Your task to perform on an android device: Go to notification settings Image 0: 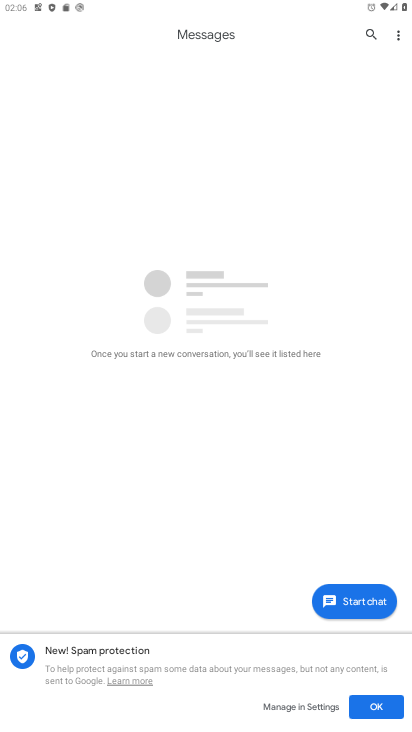
Step 0: press home button
Your task to perform on an android device: Go to notification settings Image 1: 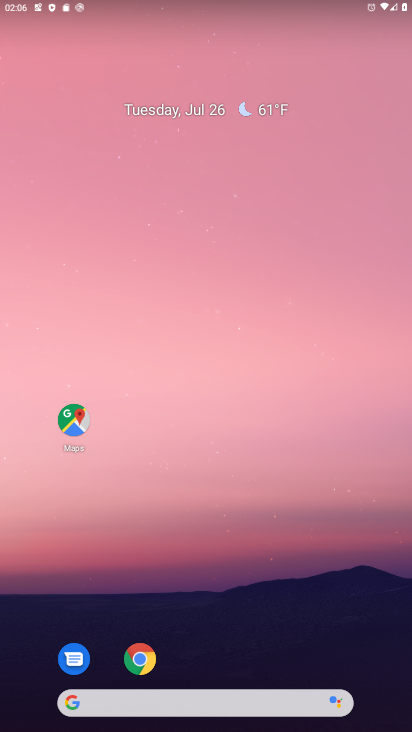
Step 1: drag from (260, 626) to (258, 127)
Your task to perform on an android device: Go to notification settings Image 2: 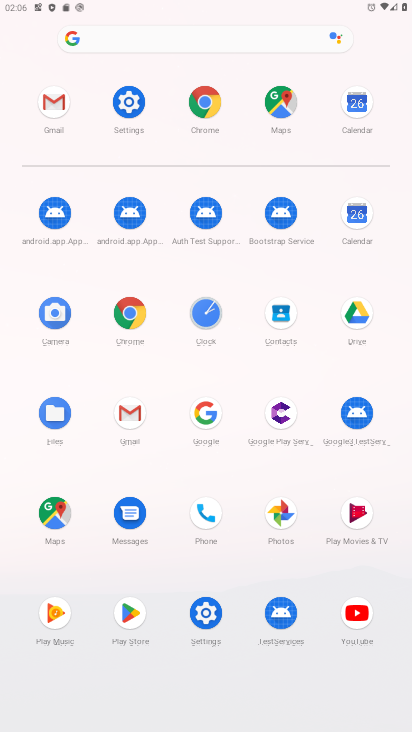
Step 2: click (132, 104)
Your task to perform on an android device: Go to notification settings Image 3: 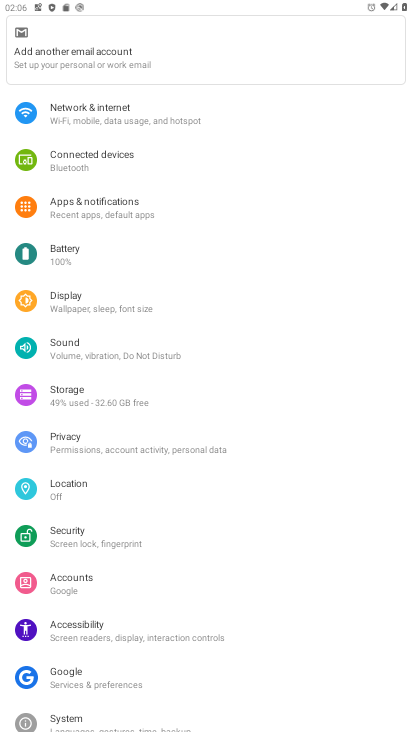
Step 3: click (108, 201)
Your task to perform on an android device: Go to notification settings Image 4: 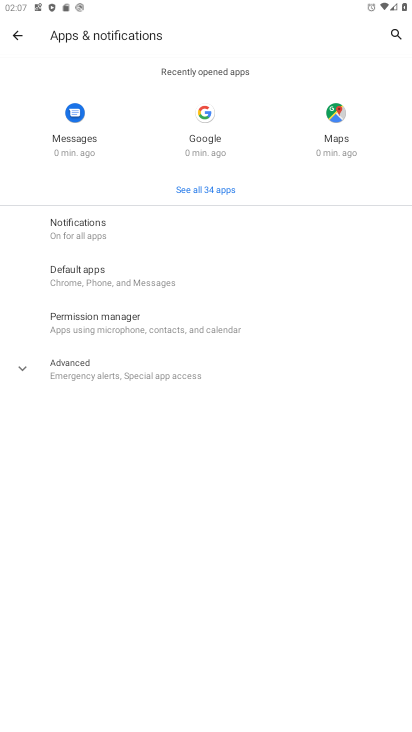
Step 4: click (58, 223)
Your task to perform on an android device: Go to notification settings Image 5: 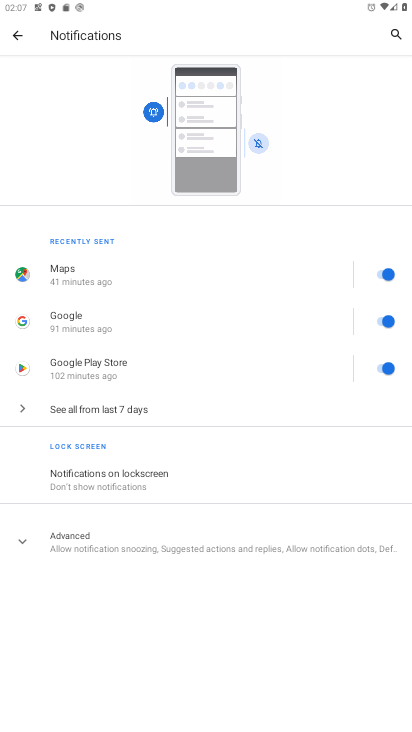
Step 5: task complete